Your task to perform on an android device: Open Reddit.com Image 0: 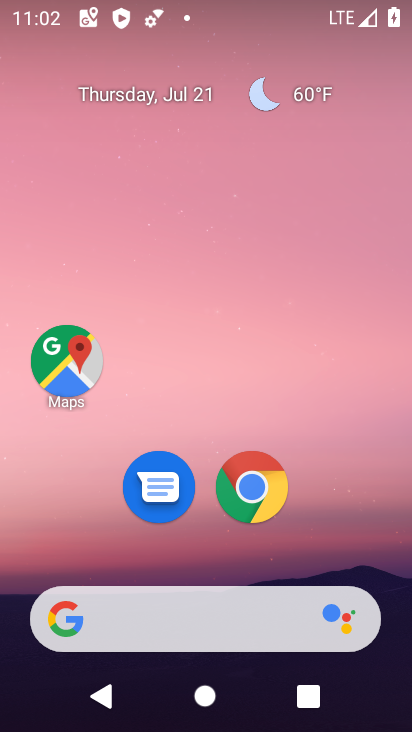
Step 0: click (259, 486)
Your task to perform on an android device: Open Reddit.com Image 1: 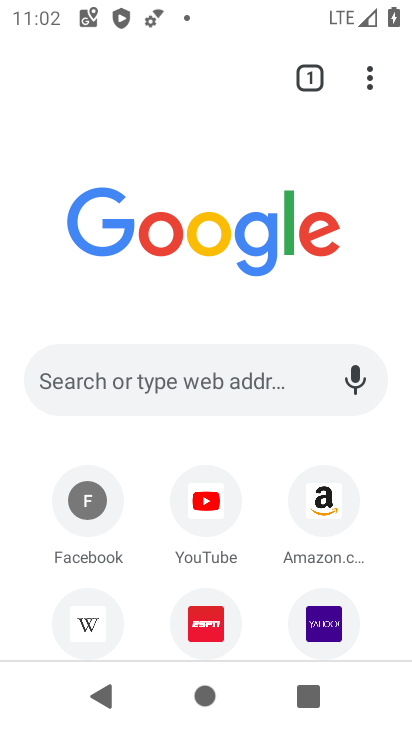
Step 1: click (93, 375)
Your task to perform on an android device: Open Reddit.com Image 2: 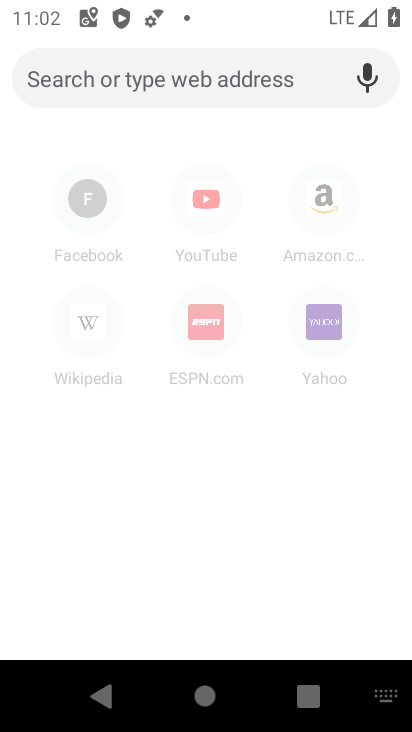
Step 2: type "reddit.com"
Your task to perform on an android device: Open Reddit.com Image 3: 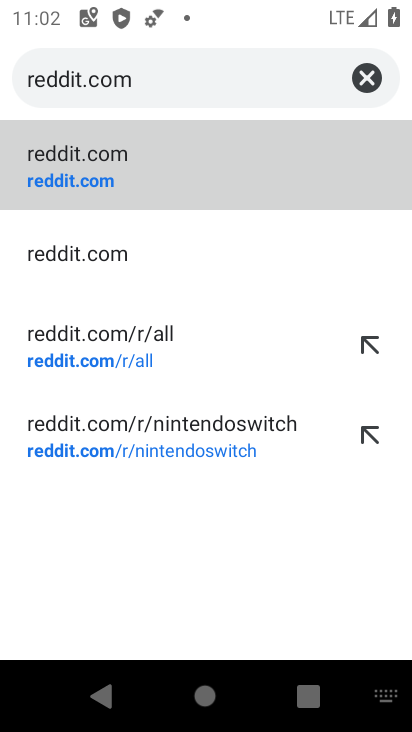
Step 3: click (159, 160)
Your task to perform on an android device: Open Reddit.com Image 4: 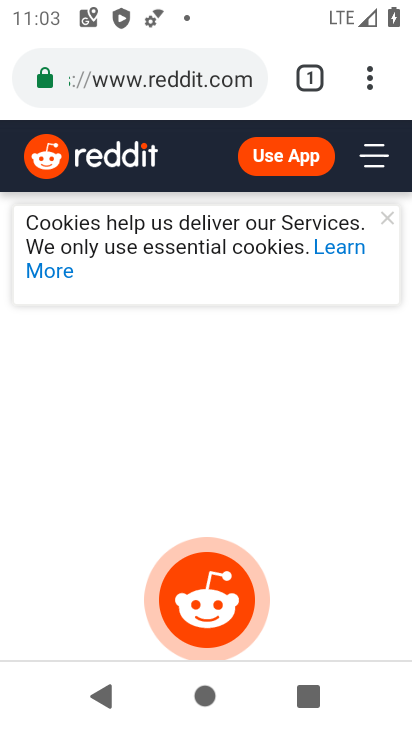
Step 4: task complete